Your task to perform on an android device: all mails in gmail Image 0: 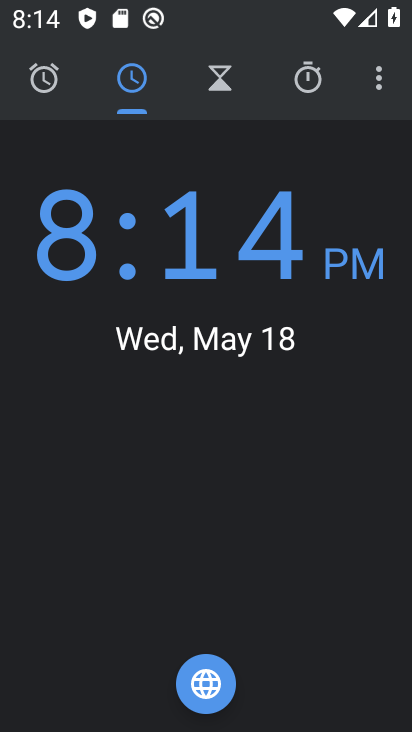
Step 0: press home button
Your task to perform on an android device: all mails in gmail Image 1: 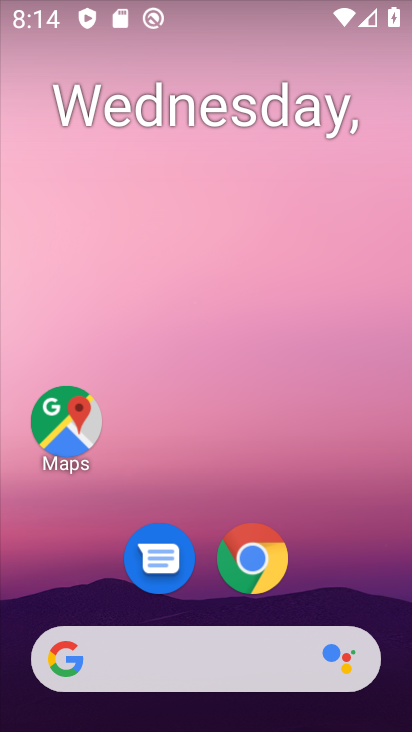
Step 1: drag from (341, 550) to (328, 66)
Your task to perform on an android device: all mails in gmail Image 2: 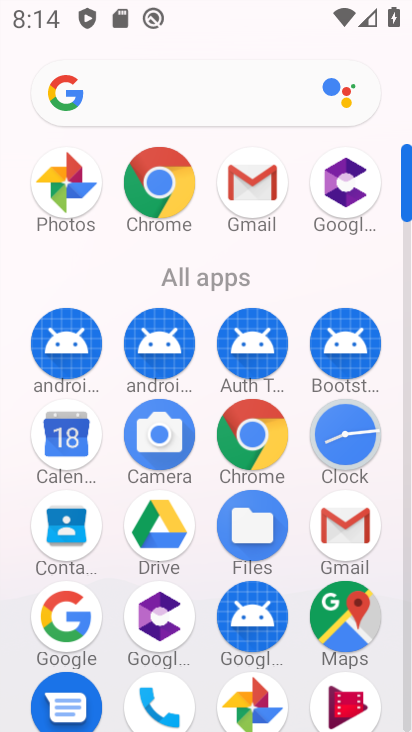
Step 2: click (262, 191)
Your task to perform on an android device: all mails in gmail Image 3: 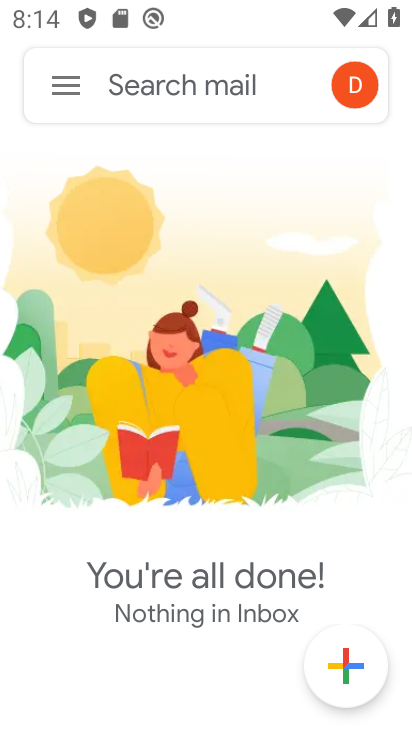
Step 3: click (69, 87)
Your task to perform on an android device: all mails in gmail Image 4: 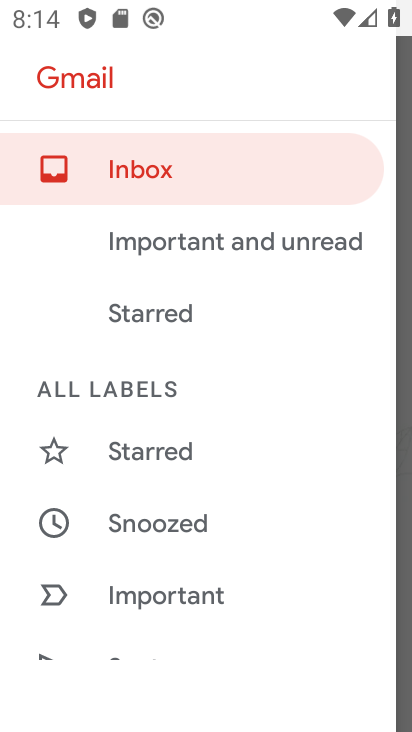
Step 4: drag from (292, 607) to (288, 96)
Your task to perform on an android device: all mails in gmail Image 5: 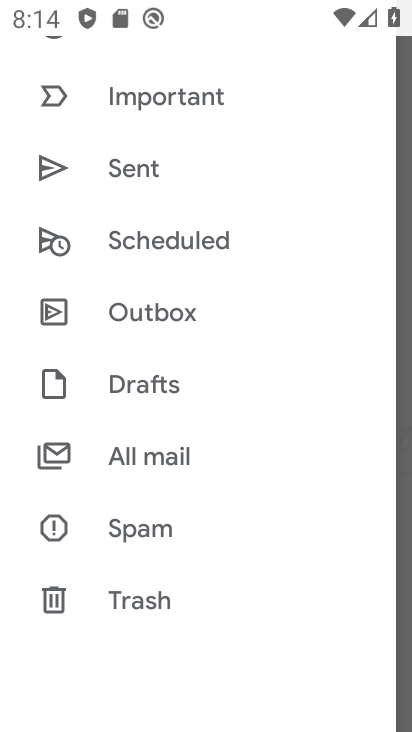
Step 5: click (161, 445)
Your task to perform on an android device: all mails in gmail Image 6: 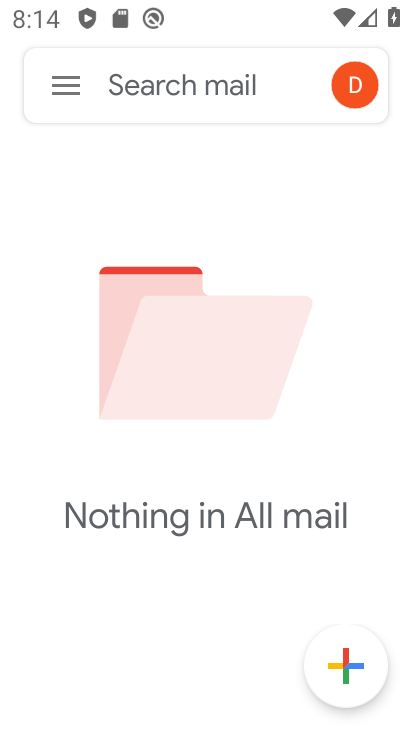
Step 6: task complete